Your task to perform on an android device: turn on the 24-hour format for clock Image 0: 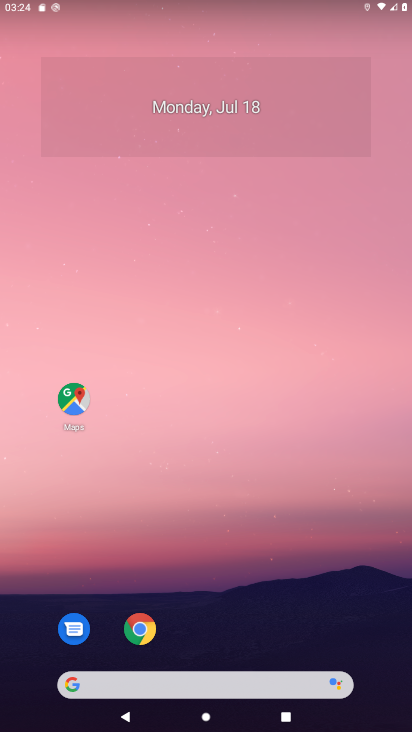
Step 0: drag from (318, 573) to (337, 137)
Your task to perform on an android device: turn on the 24-hour format for clock Image 1: 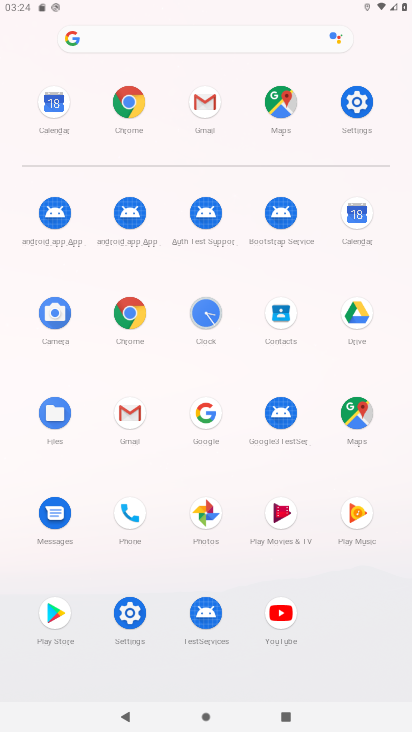
Step 1: click (207, 317)
Your task to perform on an android device: turn on the 24-hour format for clock Image 2: 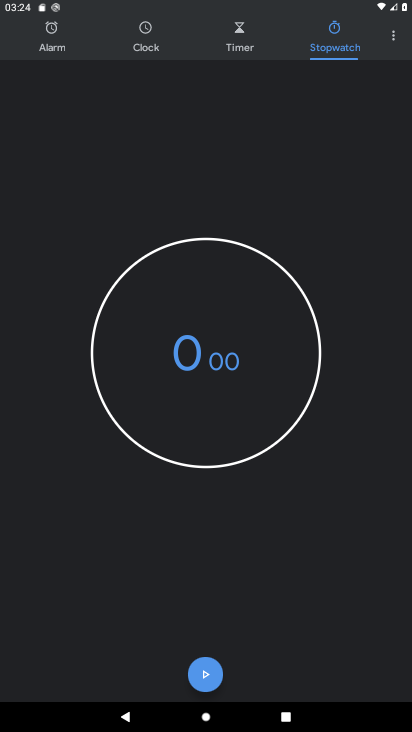
Step 2: click (391, 40)
Your task to perform on an android device: turn on the 24-hour format for clock Image 3: 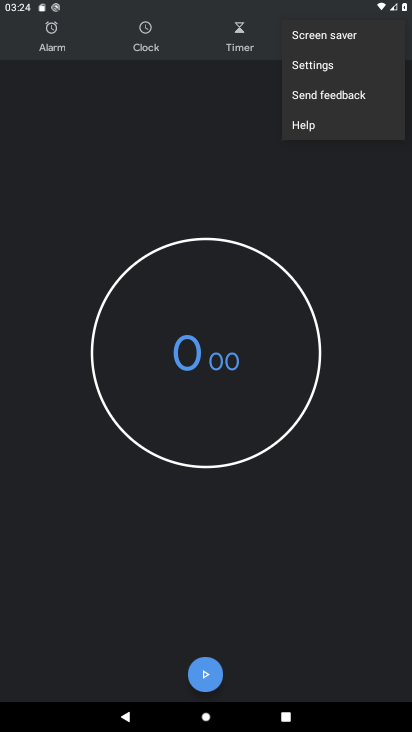
Step 3: click (337, 69)
Your task to perform on an android device: turn on the 24-hour format for clock Image 4: 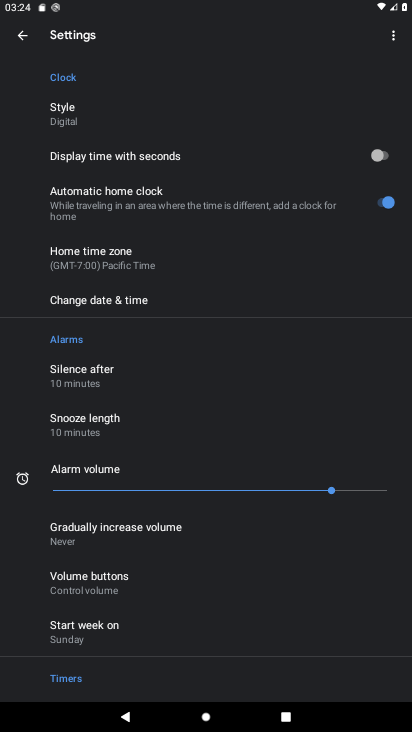
Step 4: drag from (295, 342) to (307, 269)
Your task to perform on an android device: turn on the 24-hour format for clock Image 5: 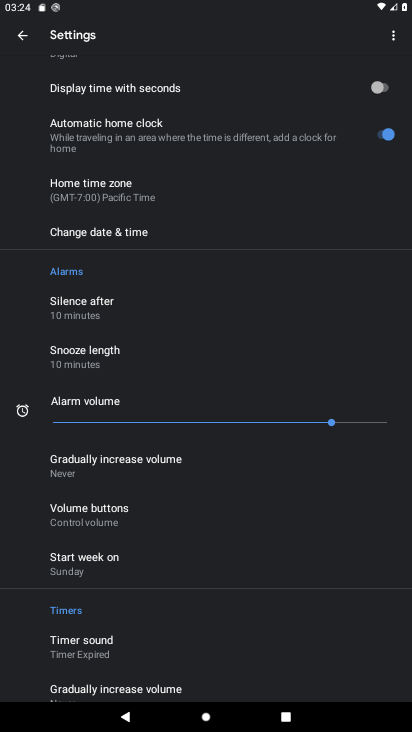
Step 5: drag from (298, 452) to (294, 262)
Your task to perform on an android device: turn on the 24-hour format for clock Image 6: 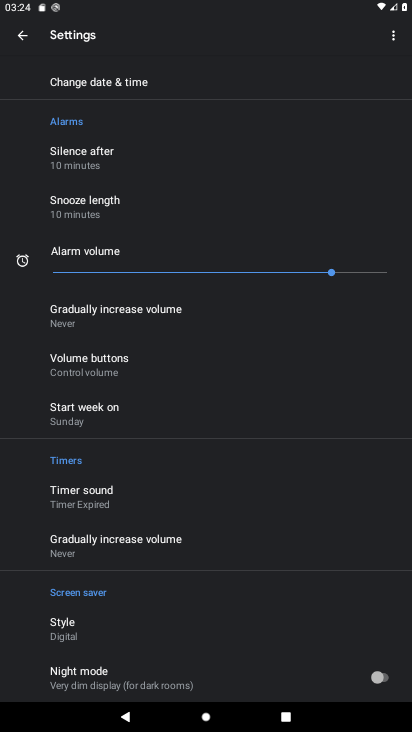
Step 6: click (175, 81)
Your task to perform on an android device: turn on the 24-hour format for clock Image 7: 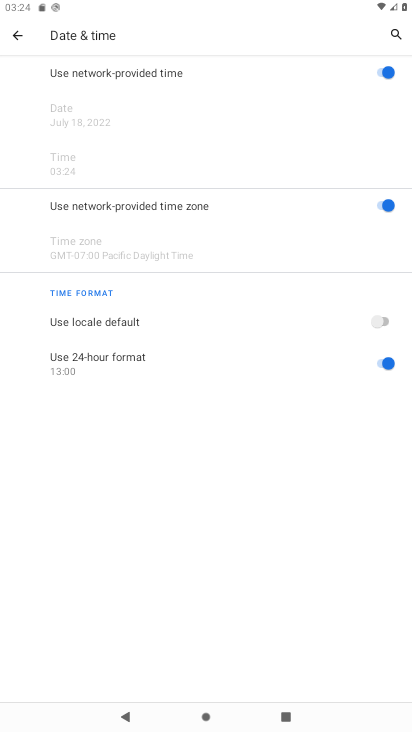
Step 7: task complete